Your task to perform on an android device: Open calendar and show me the third week of next month Image 0: 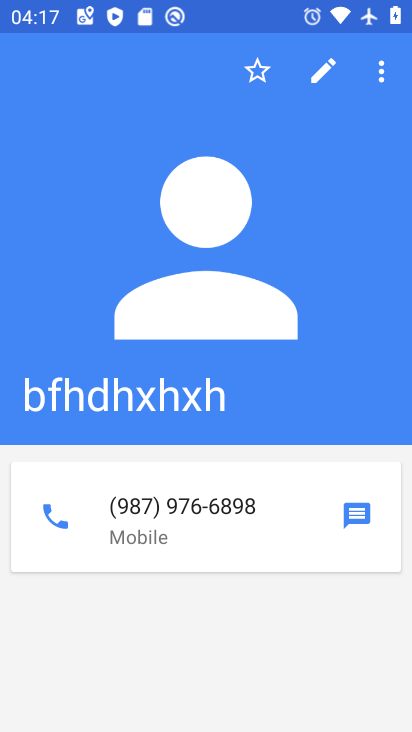
Step 0: press home button
Your task to perform on an android device: Open calendar and show me the third week of next month Image 1: 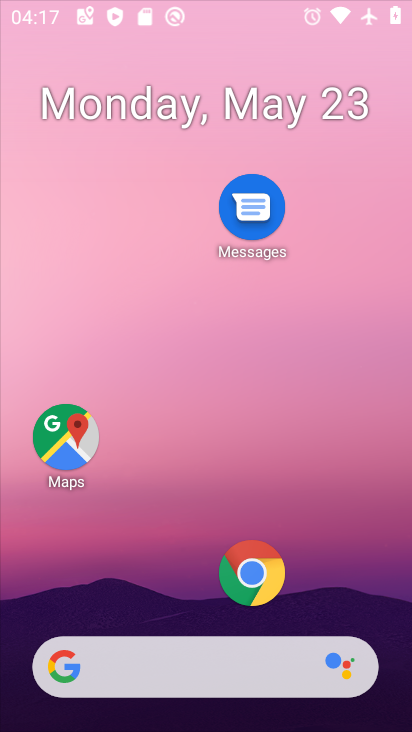
Step 1: drag from (274, 696) to (337, 29)
Your task to perform on an android device: Open calendar and show me the third week of next month Image 2: 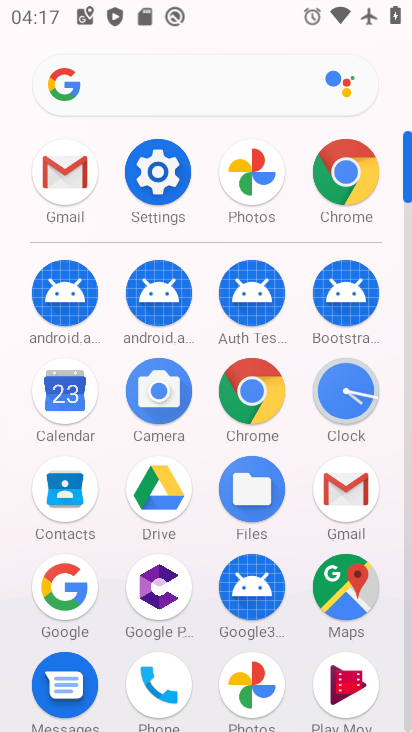
Step 2: click (85, 389)
Your task to perform on an android device: Open calendar and show me the third week of next month Image 3: 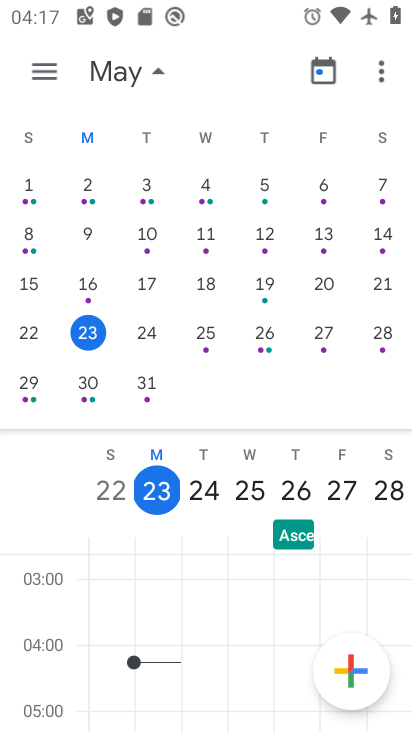
Step 3: drag from (382, 269) to (3, 373)
Your task to perform on an android device: Open calendar and show me the third week of next month Image 4: 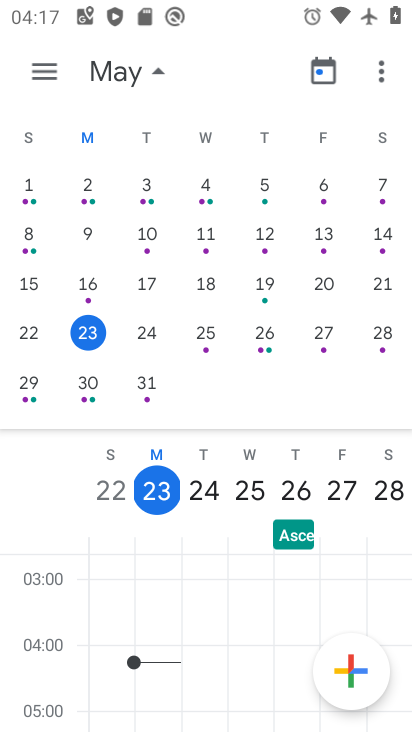
Step 4: drag from (334, 276) to (10, 293)
Your task to perform on an android device: Open calendar and show me the third week of next month Image 5: 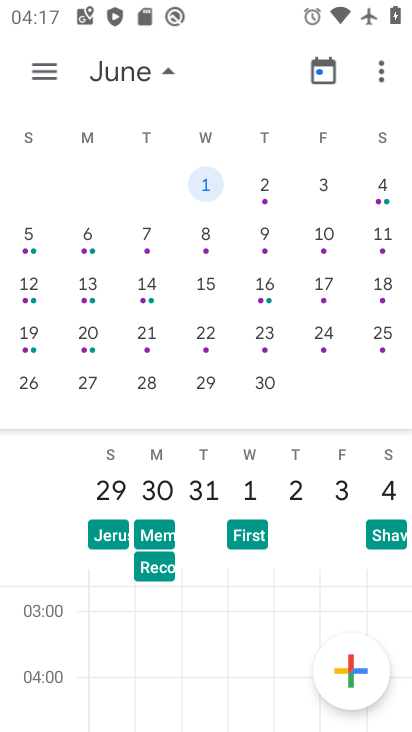
Step 5: click (326, 289)
Your task to perform on an android device: Open calendar and show me the third week of next month Image 6: 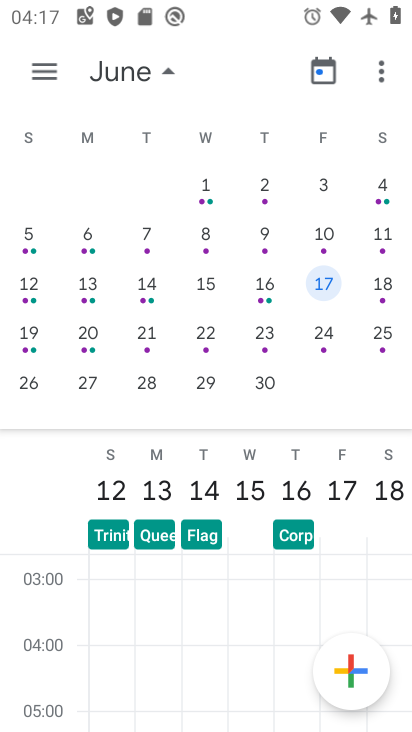
Step 6: task complete